Your task to perform on an android device: Check the news Image 0: 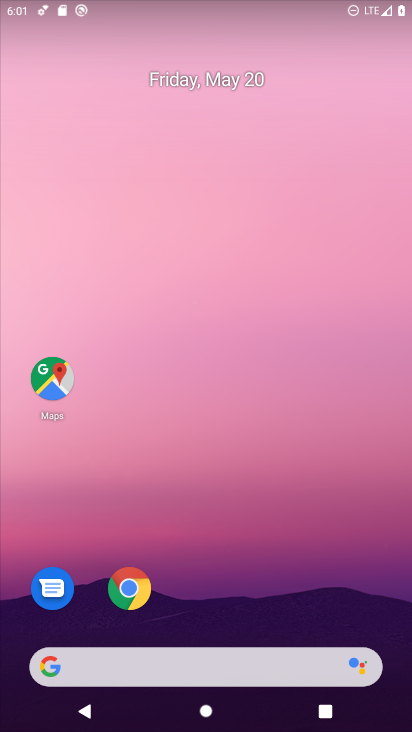
Step 0: drag from (222, 606) to (208, 0)
Your task to perform on an android device: Check the news Image 1: 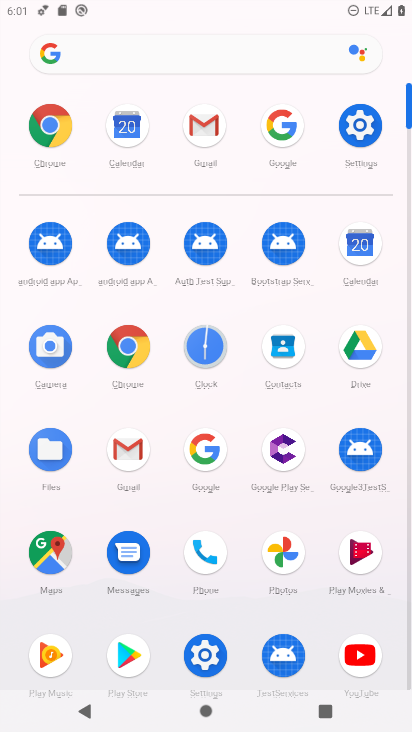
Step 1: click (288, 156)
Your task to perform on an android device: Check the news Image 2: 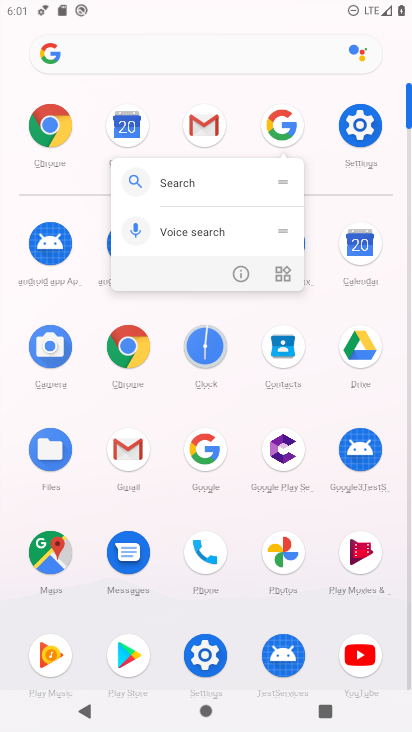
Step 2: click (282, 128)
Your task to perform on an android device: Check the news Image 3: 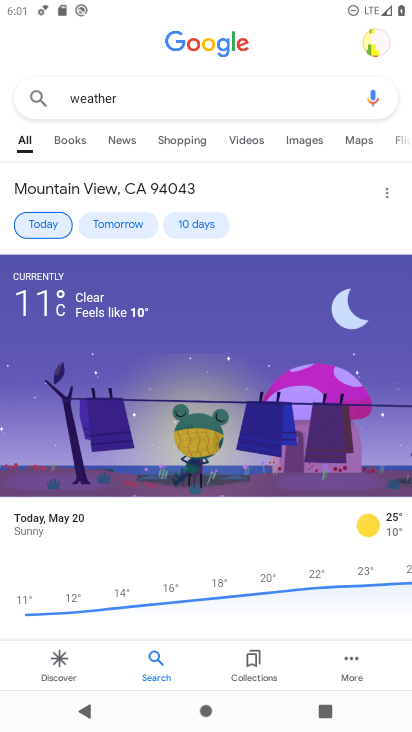
Step 3: click (124, 99)
Your task to perform on an android device: Check the news Image 4: 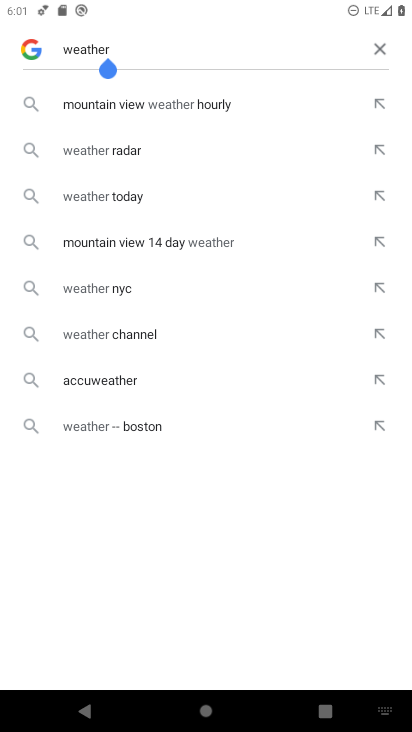
Step 4: click (376, 55)
Your task to perform on an android device: Check the news Image 5: 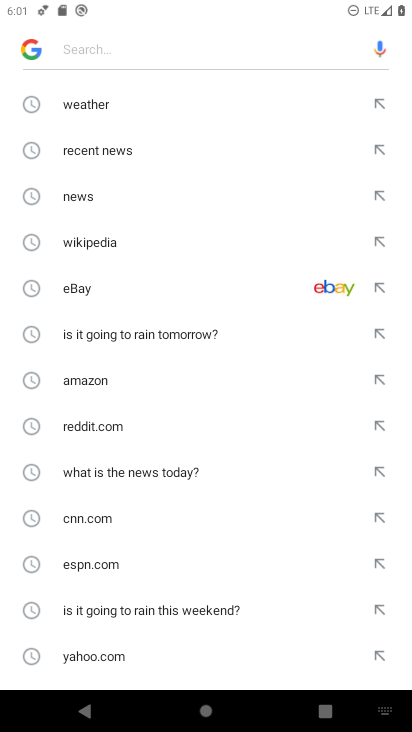
Step 5: click (93, 197)
Your task to perform on an android device: Check the news Image 6: 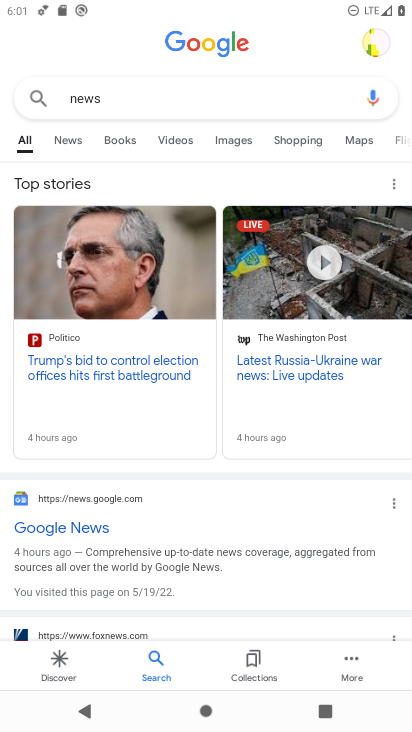
Step 6: task complete